Your task to perform on an android device: Toggle the flashlight Image 0: 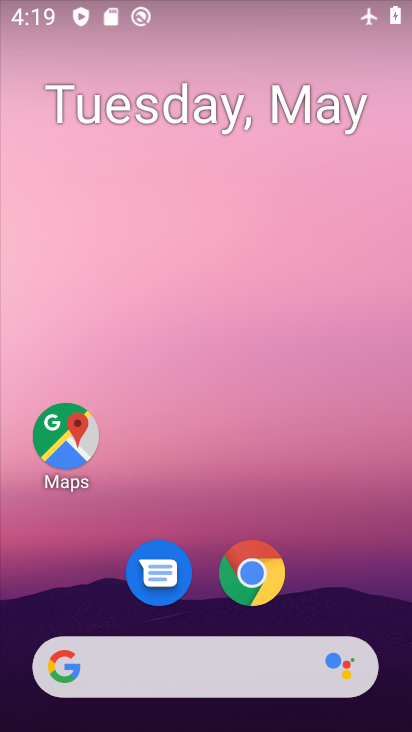
Step 0: drag from (324, 513) to (298, 106)
Your task to perform on an android device: Toggle the flashlight Image 1: 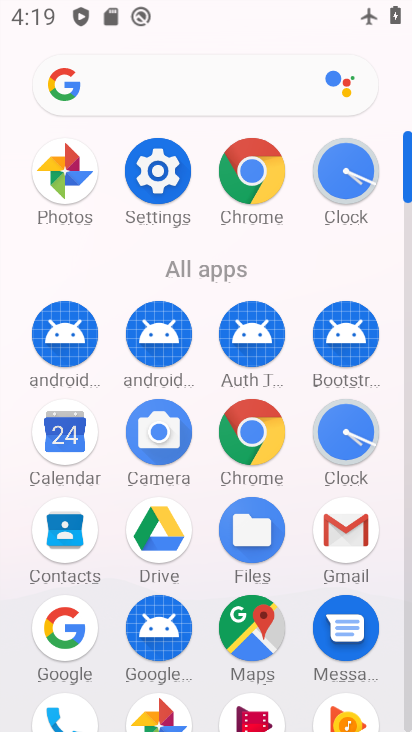
Step 1: click (153, 198)
Your task to perform on an android device: Toggle the flashlight Image 2: 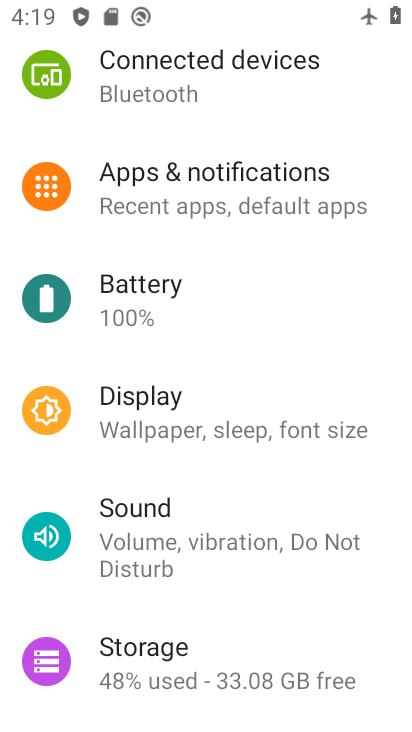
Step 2: click (154, 426)
Your task to perform on an android device: Toggle the flashlight Image 3: 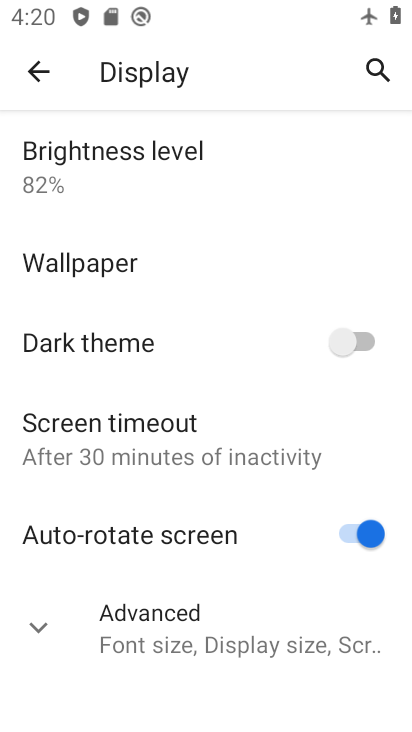
Step 3: task complete